Your task to perform on an android device: Open Google Image 0: 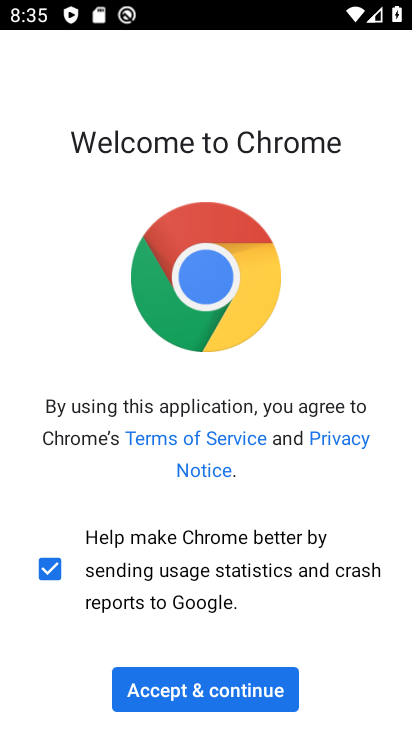
Step 0: press home button
Your task to perform on an android device: Open Google Image 1: 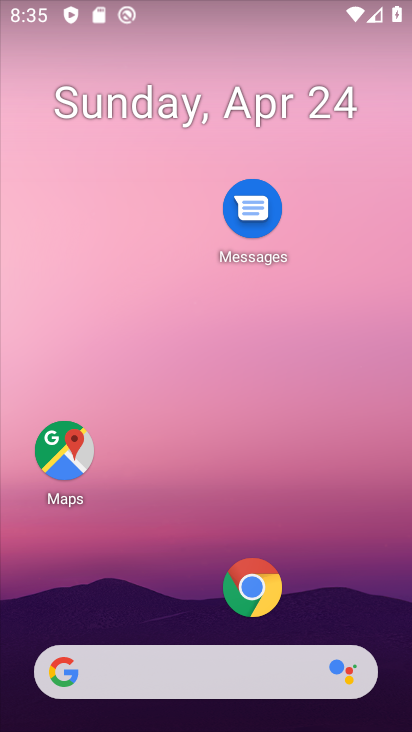
Step 1: click (59, 660)
Your task to perform on an android device: Open Google Image 2: 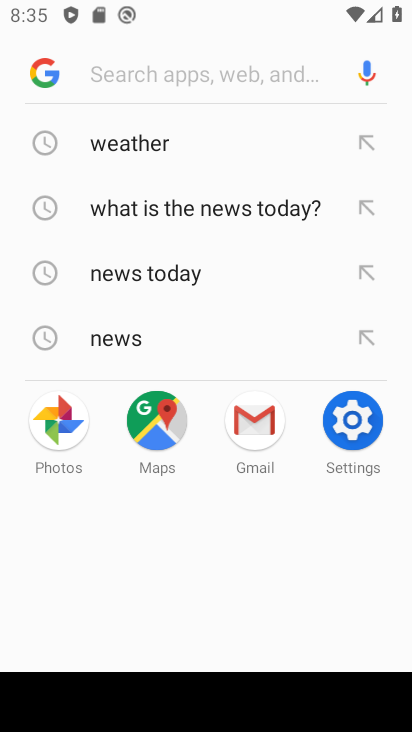
Step 2: click (44, 69)
Your task to perform on an android device: Open Google Image 3: 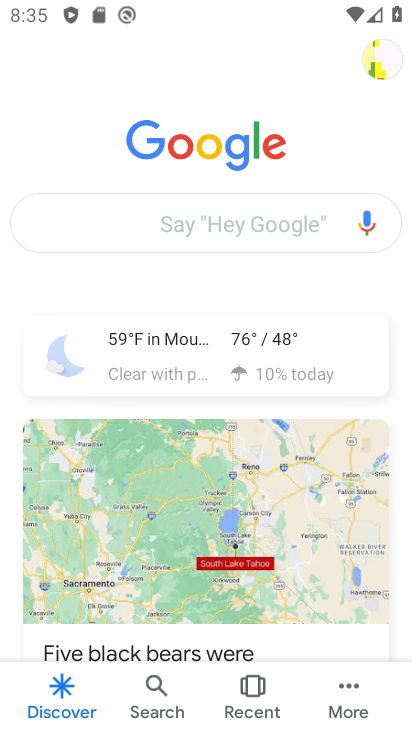
Step 3: task complete